Your task to perform on an android device: move an email to a new category in the gmail app Image 0: 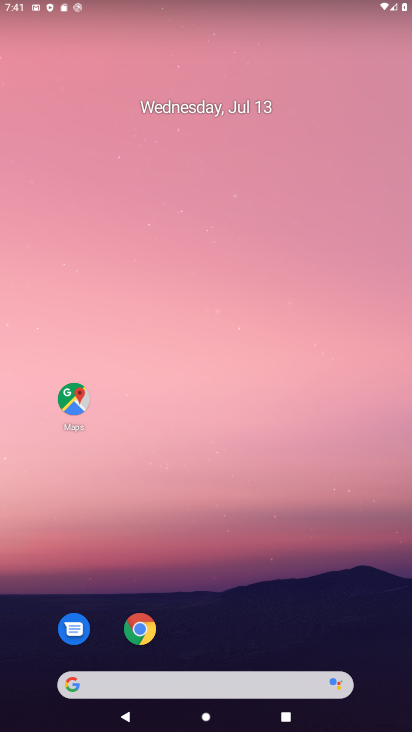
Step 0: click (309, 35)
Your task to perform on an android device: move an email to a new category in the gmail app Image 1: 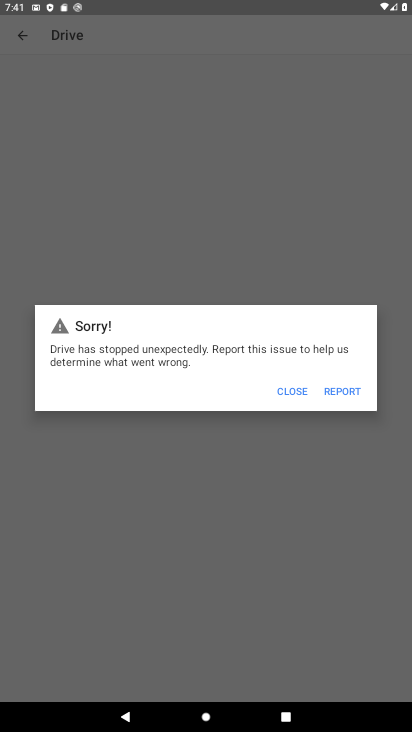
Step 1: press home button
Your task to perform on an android device: move an email to a new category in the gmail app Image 2: 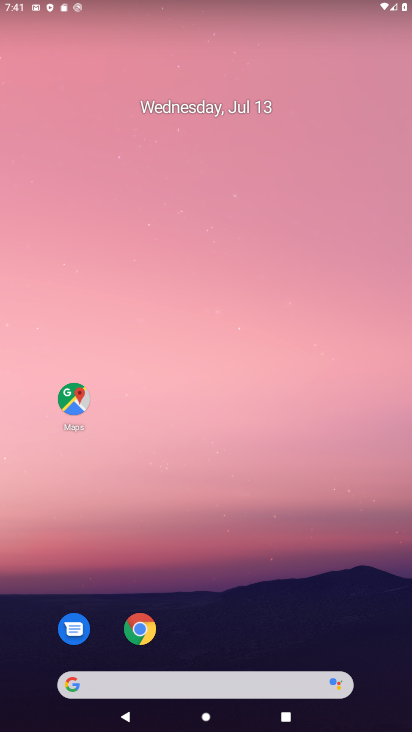
Step 2: drag from (390, 708) to (337, 8)
Your task to perform on an android device: move an email to a new category in the gmail app Image 3: 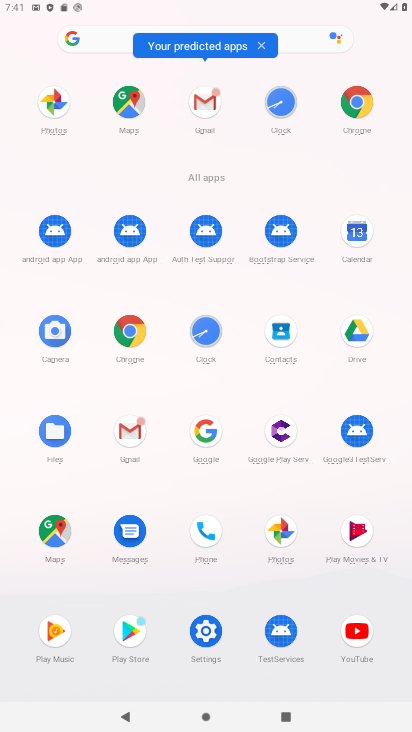
Step 3: click (209, 109)
Your task to perform on an android device: move an email to a new category in the gmail app Image 4: 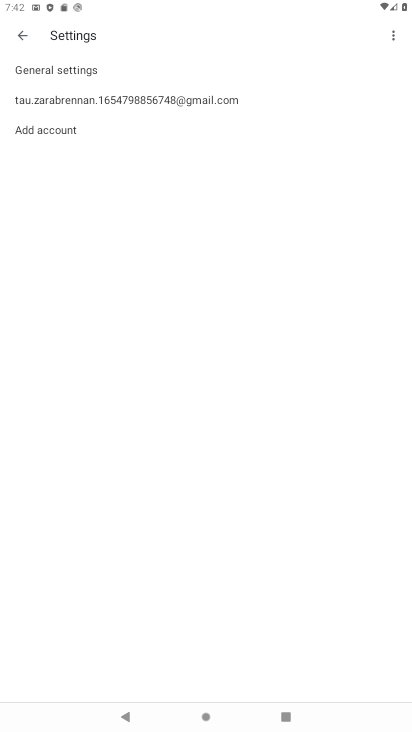
Step 4: click (23, 35)
Your task to perform on an android device: move an email to a new category in the gmail app Image 5: 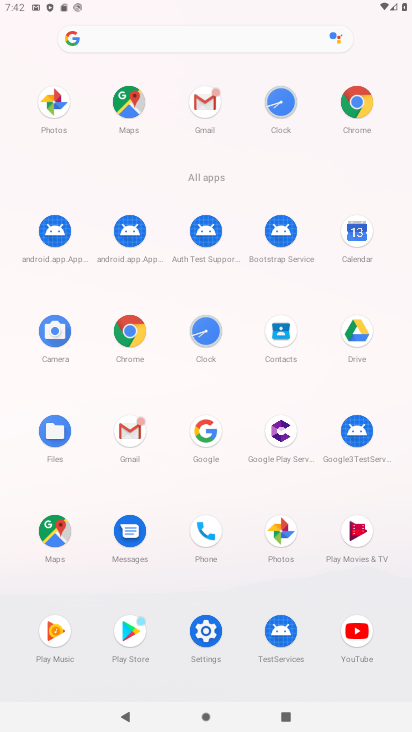
Step 5: click (207, 109)
Your task to perform on an android device: move an email to a new category in the gmail app Image 6: 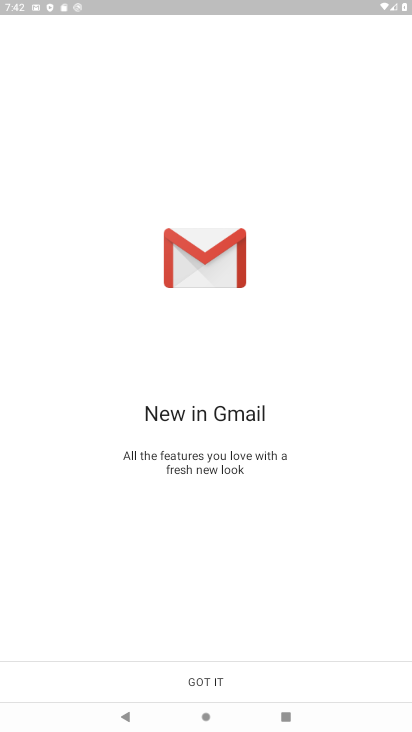
Step 6: click (202, 674)
Your task to perform on an android device: move an email to a new category in the gmail app Image 7: 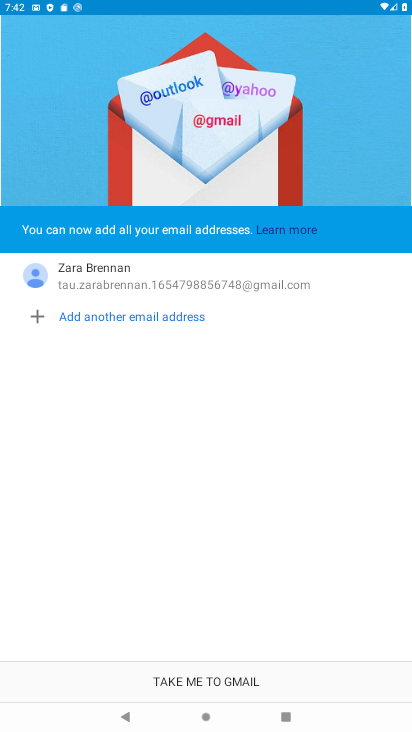
Step 7: click (203, 675)
Your task to perform on an android device: move an email to a new category in the gmail app Image 8: 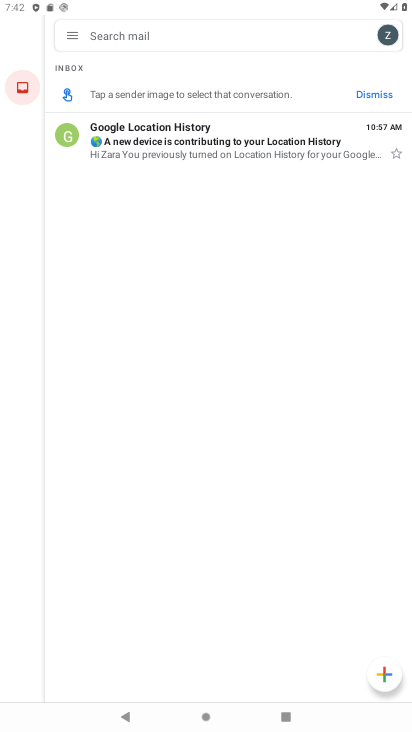
Step 8: click (231, 140)
Your task to perform on an android device: move an email to a new category in the gmail app Image 9: 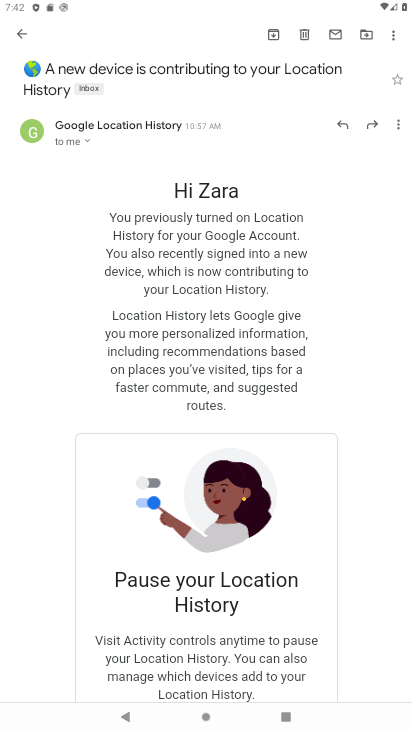
Step 9: click (403, 126)
Your task to perform on an android device: move an email to a new category in the gmail app Image 10: 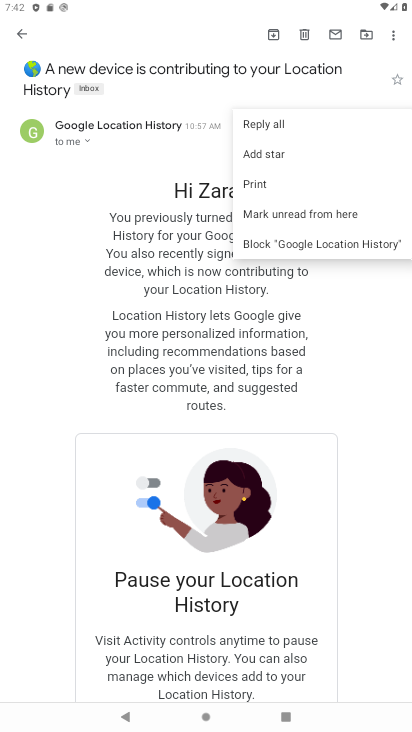
Step 10: click (360, 311)
Your task to perform on an android device: move an email to a new category in the gmail app Image 11: 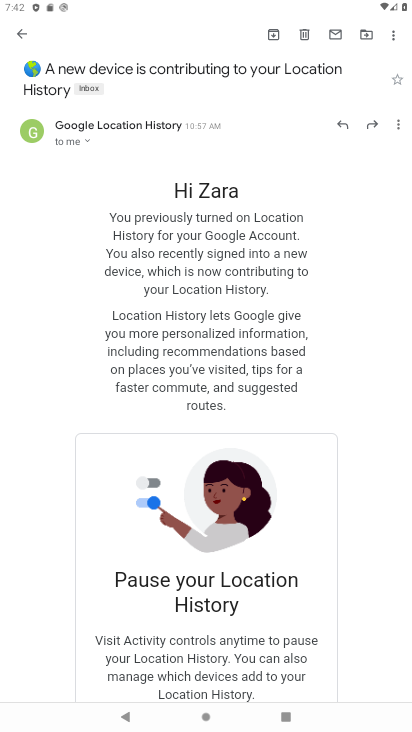
Step 11: click (402, 82)
Your task to perform on an android device: move an email to a new category in the gmail app Image 12: 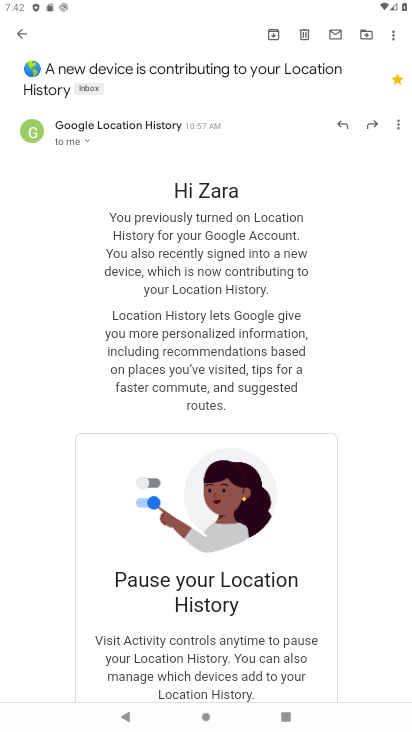
Step 12: click (18, 32)
Your task to perform on an android device: move an email to a new category in the gmail app Image 13: 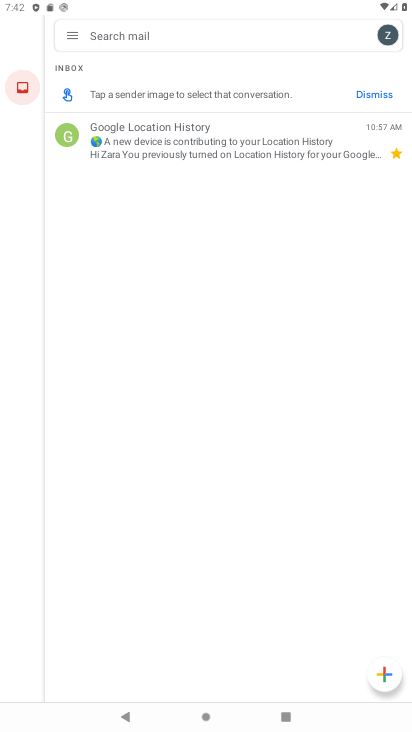
Step 13: task complete